Your task to perform on an android device: all mails in gmail Image 0: 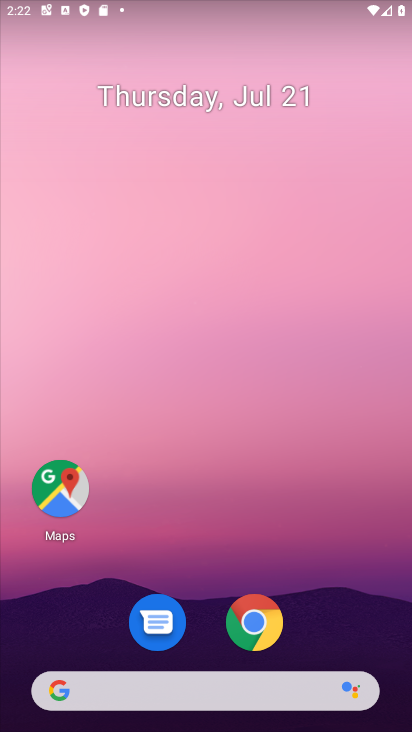
Step 0: drag from (317, 688) to (187, 76)
Your task to perform on an android device: all mails in gmail Image 1: 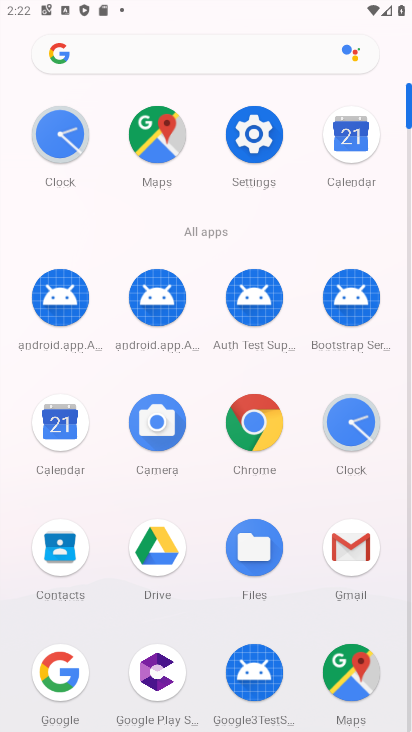
Step 1: click (356, 558)
Your task to perform on an android device: all mails in gmail Image 2: 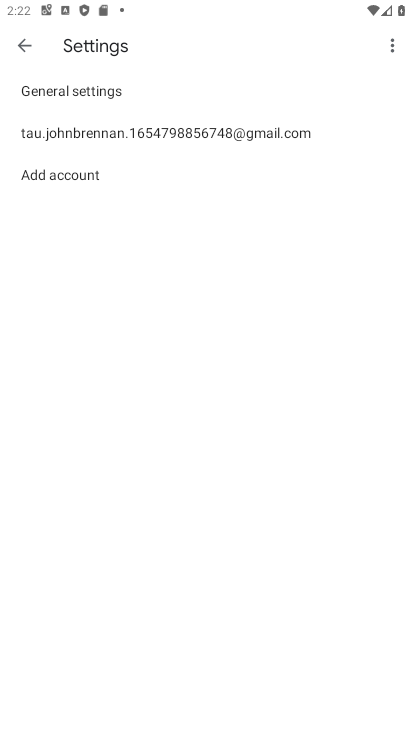
Step 2: click (21, 30)
Your task to perform on an android device: all mails in gmail Image 3: 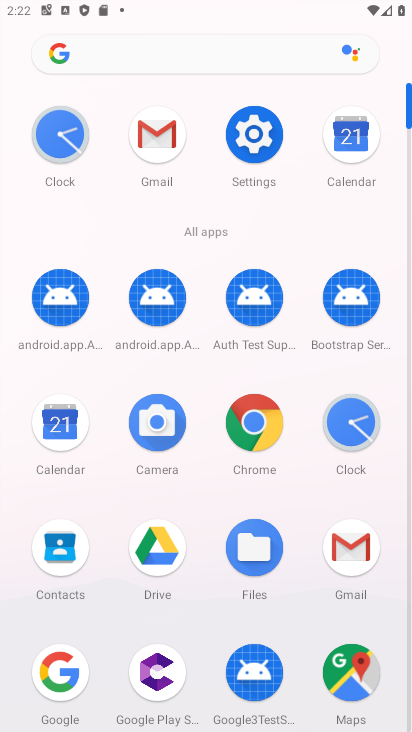
Step 3: click (153, 138)
Your task to perform on an android device: all mails in gmail Image 4: 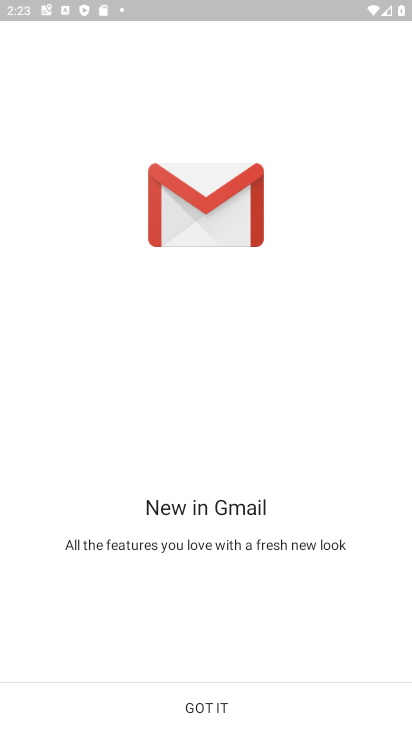
Step 4: click (244, 691)
Your task to perform on an android device: all mails in gmail Image 5: 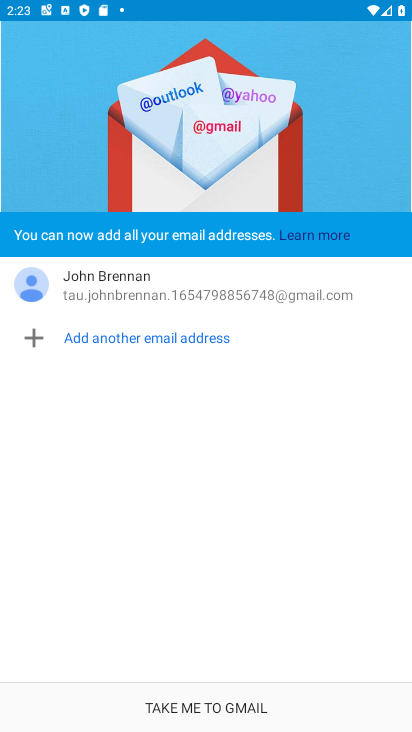
Step 5: click (226, 711)
Your task to perform on an android device: all mails in gmail Image 6: 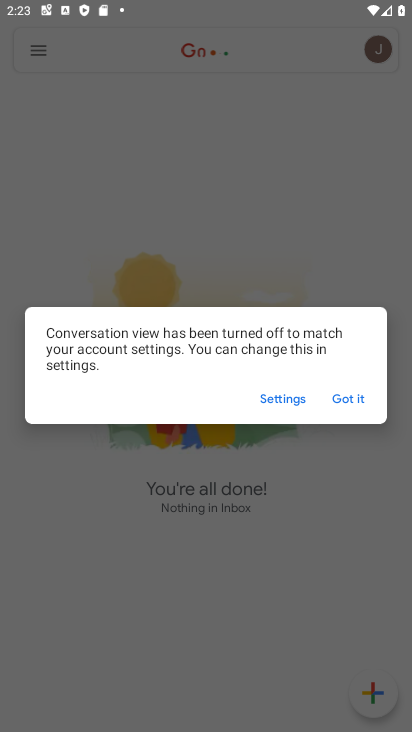
Step 6: click (335, 402)
Your task to perform on an android device: all mails in gmail Image 7: 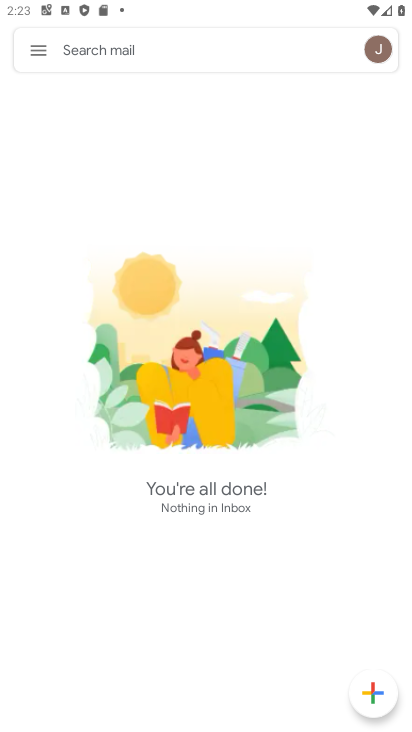
Step 7: click (45, 47)
Your task to perform on an android device: all mails in gmail Image 8: 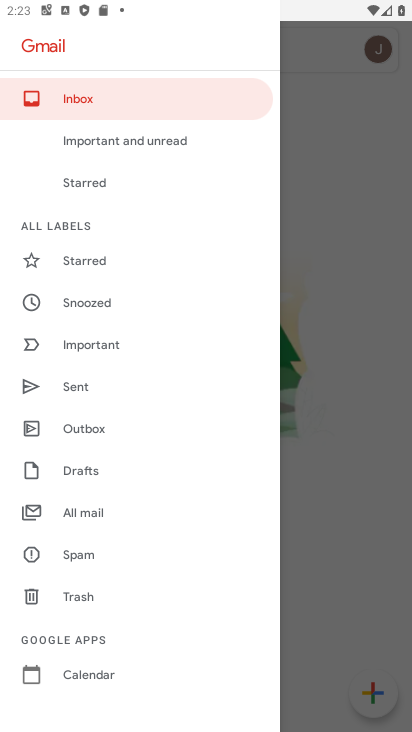
Step 8: click (93, 506)
Your task to perform on an android device: all mails in gmail Image 9: 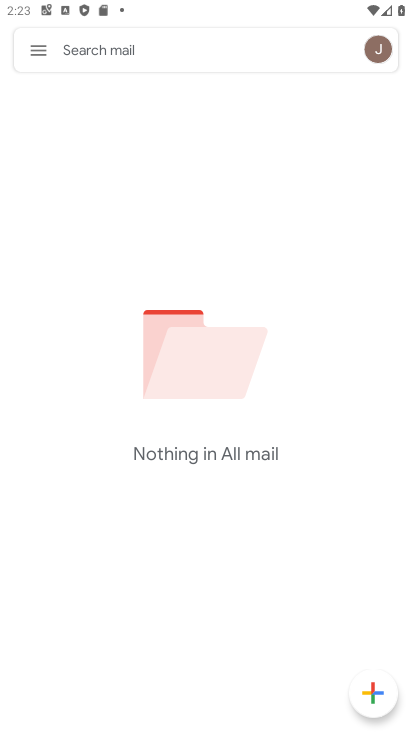
Step 9: task complete